Your task to perform on an android device: When is my next meeting? Image 0: 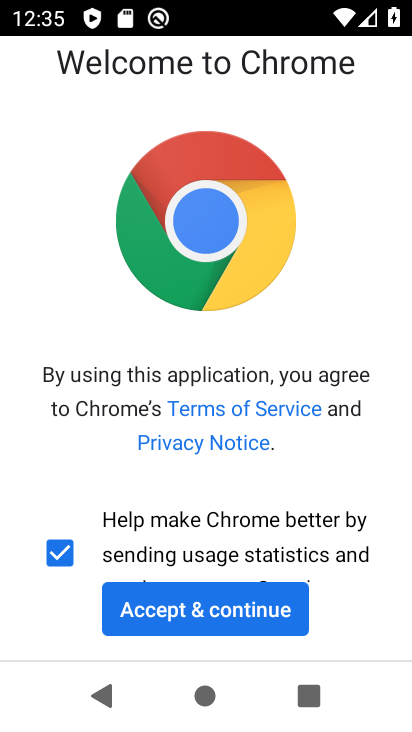
Step 0: press home button
Your task to perform on an android device: When is my next meeting? Image 1: 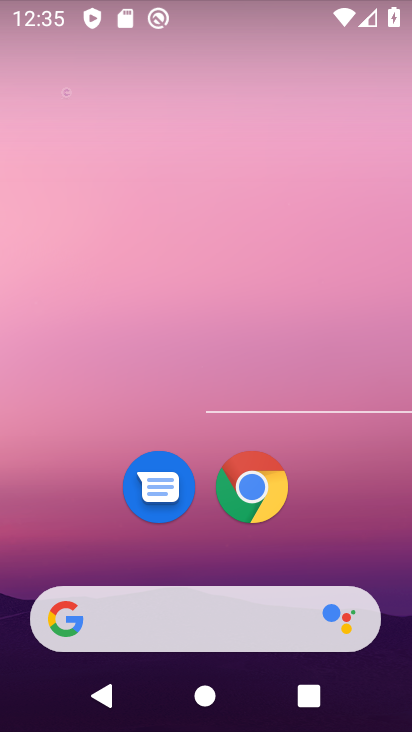
Step 1: drag from (187, 553) to (209, 31)
Your task to perform on an android device: When is my next meeting? Image 2: 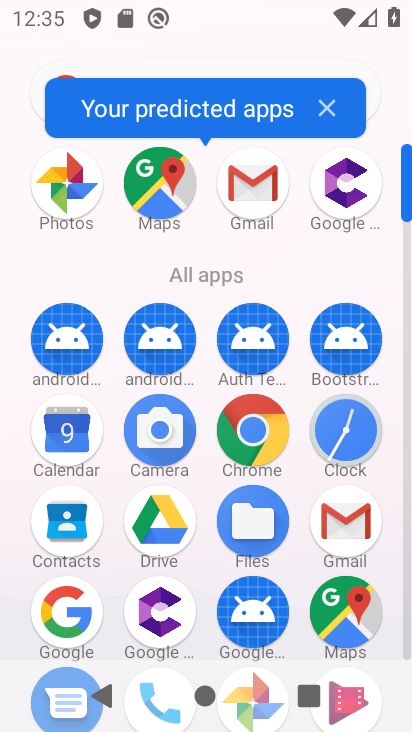
Step 2: click (89, 423)
Your task to perform on an android device: When is my next meeting? Image 3: 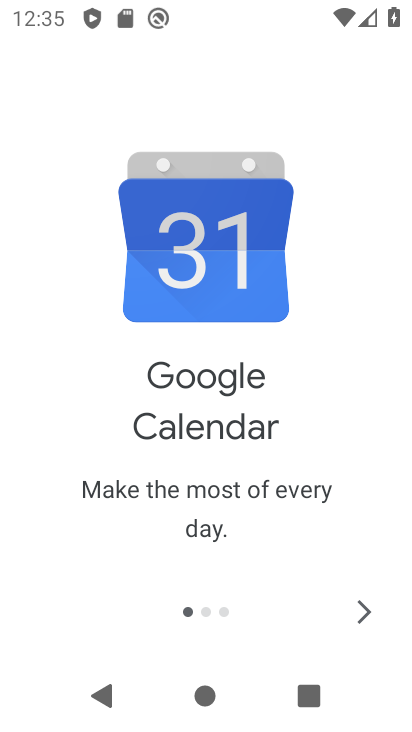
Step 3: click (353, 607)
Your task to perform on an android device: When is my next meeting? Image 4: 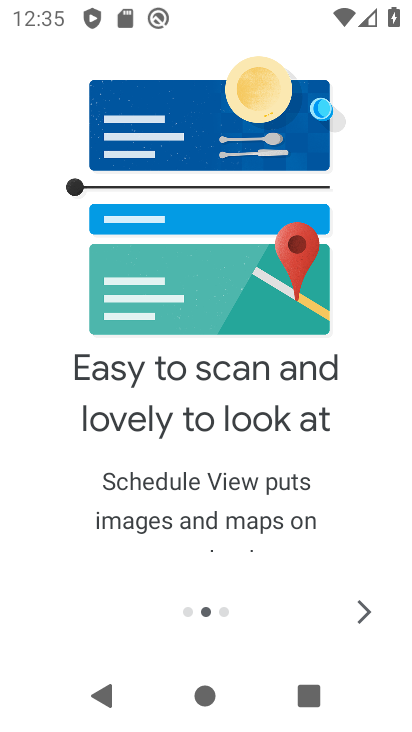
Step 4: click (353, 607)
Your task to perform on an android device: When is my next meeting? Image 5: 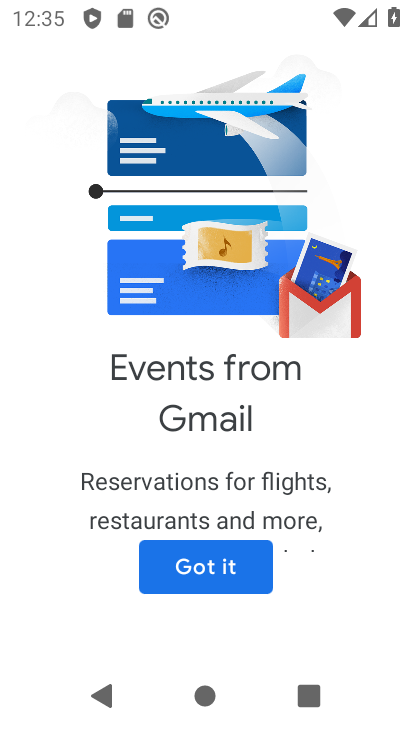
Step 5: click (252, 564)
Your task to perform on an android device: When is my next meeting? Image 6: 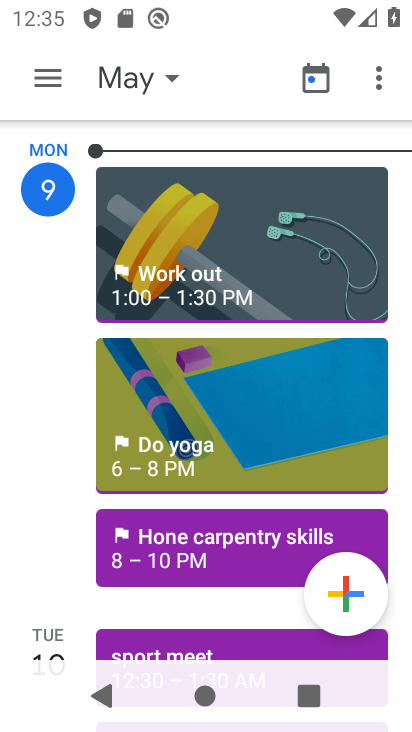
Step 6: task complete